Your task to perform on an android device: turn pop-ups off in chrome Image 0: 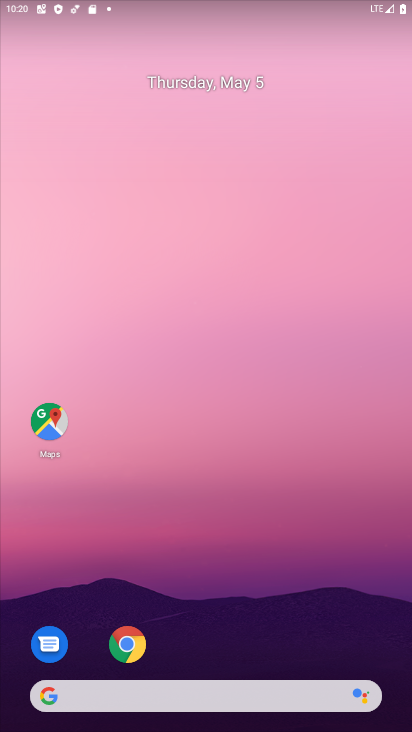
Step 0: click (131, 653)
Your task to perform on an android device: turn pop-ups off in chrome Image 1: 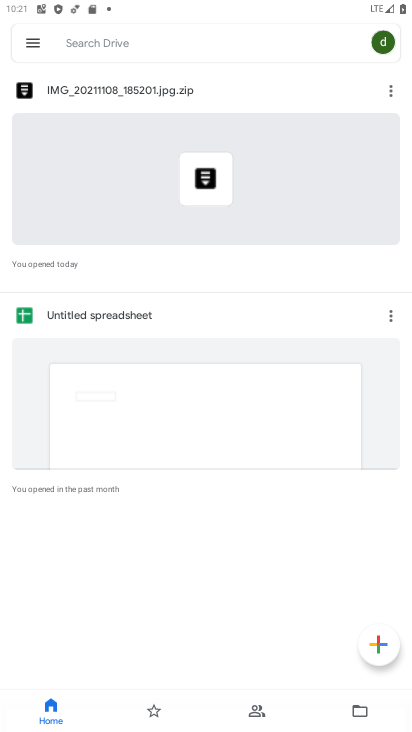
Step 1: press home button
Your task to perform on an android device: turn pop-ups off in chrome Image 2: 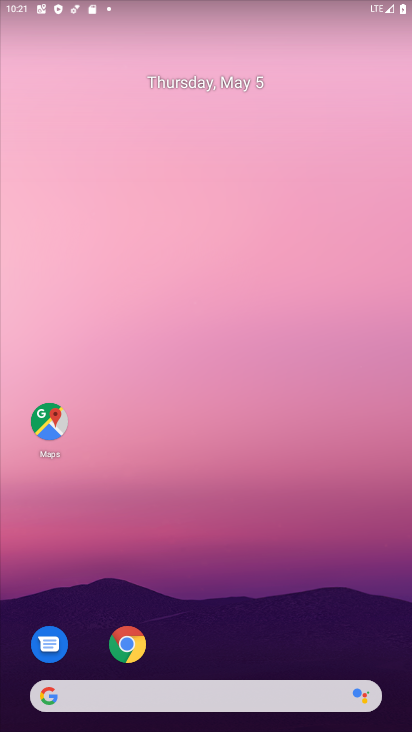
Step 2: click (135, 643)
Your task to perform on an android device: turn pop-ups off in chrome Image 3: 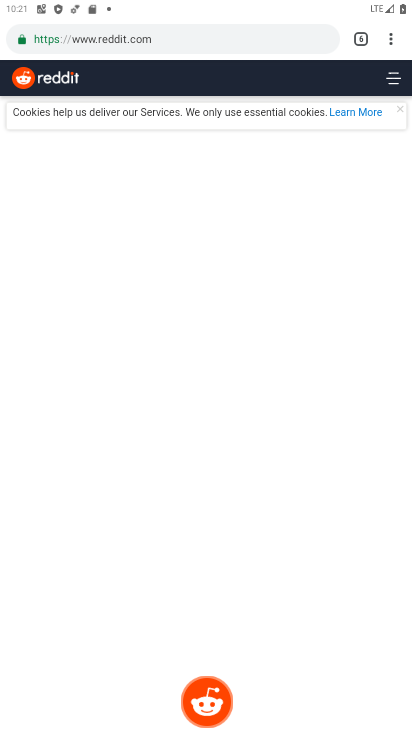
Step 3: click (393, 40)
Your task to perform on an android device: turn pop-ups off in chrome Image 4: 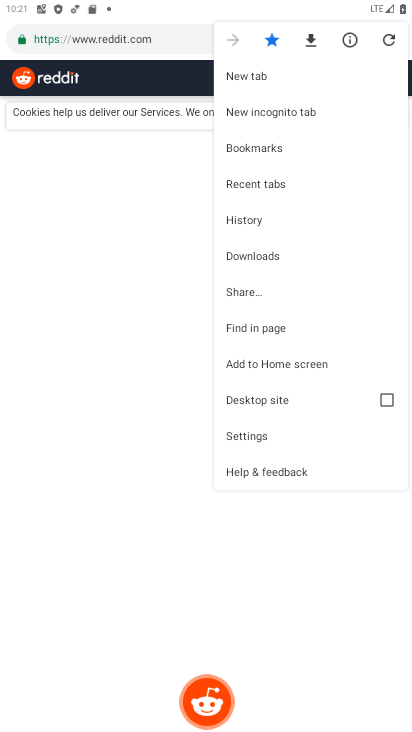
Step 4: click (252, 440)
Your task to perform on an android device: turn pop-ups off in chrome Image 5: 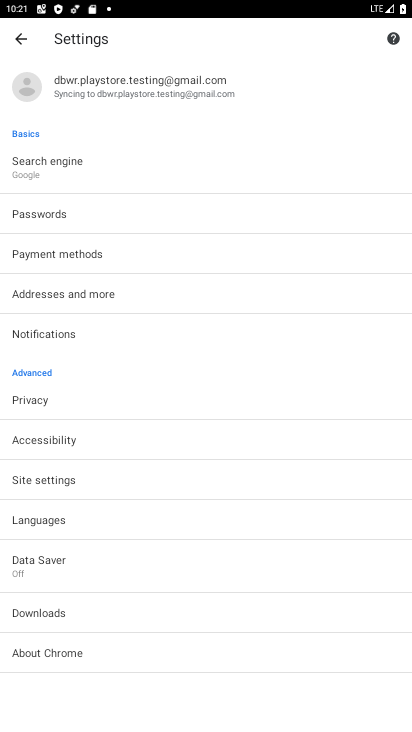
Step 5: click (32, 483)
Your task to perform on an android device: turn pop-ups off in chrome Image 6: 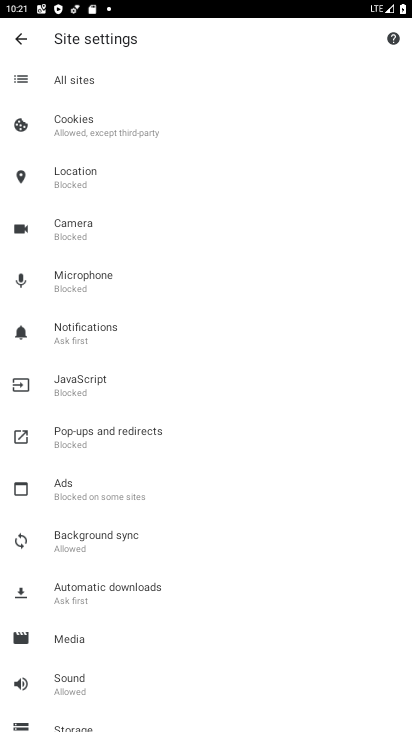
Step 6: click (96, 427)
Your task to perform on an android device: turn pop-ups off in chrome Image 7: 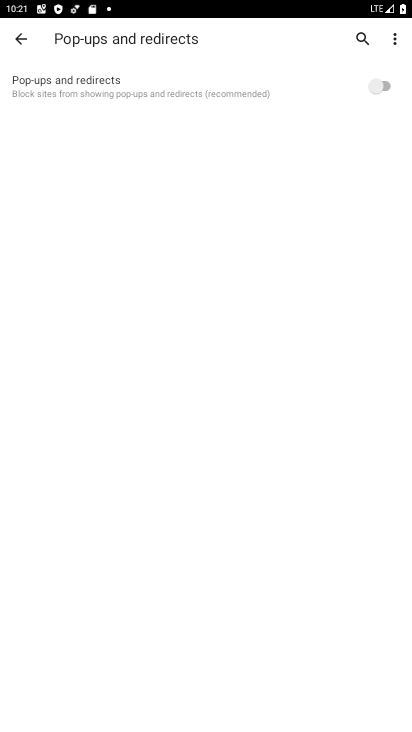
Step 7: task complete